Your task to perform on an android device: turn on notifications settings in the gmail app Image 0: 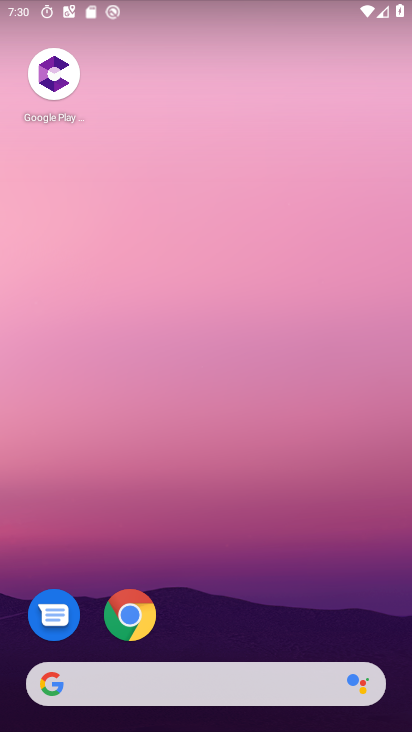
Step 0: drag from (199, 686) to (335, 232)
Your task to perform on an android device: turn on notifications settings in the gmail app Image 1: 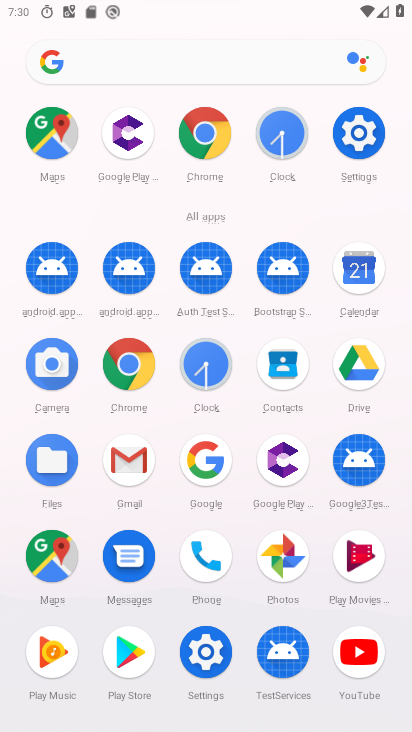
Step 1: click (126, 459)
Your task to perform on an android device: turn on notifications settings in the gmail app Image 2: 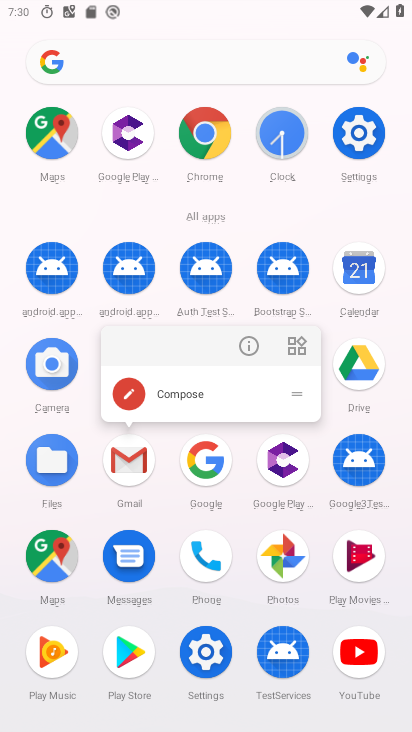
Step 2: click (124, 468)
Your task to perform on an android device: turn on notifications settings in the gmail app Image 3: 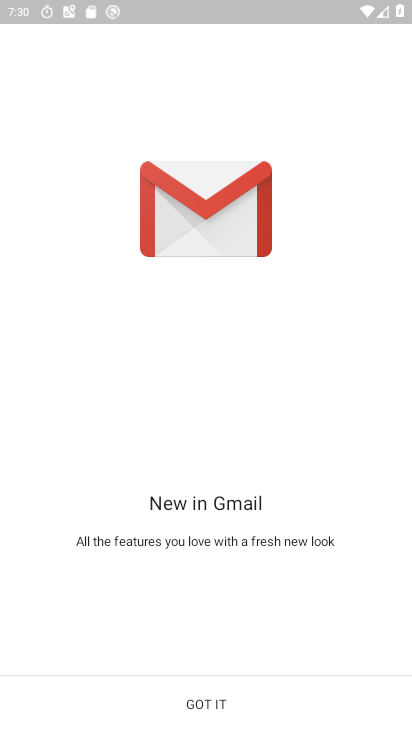
Step 3: click (202, 705)
Your task to perform on an android device: turn on notifications settings in the gmail app Image 4: 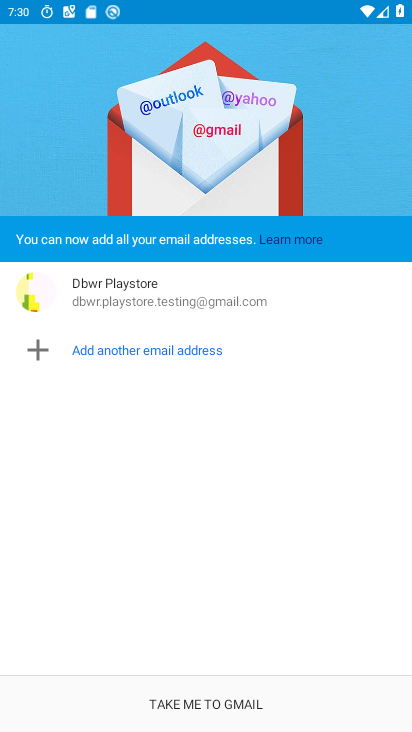
Step 4: click (202, 705)
Your task to perform on an android device: turn on notifications settings in the gmail app Image 5: 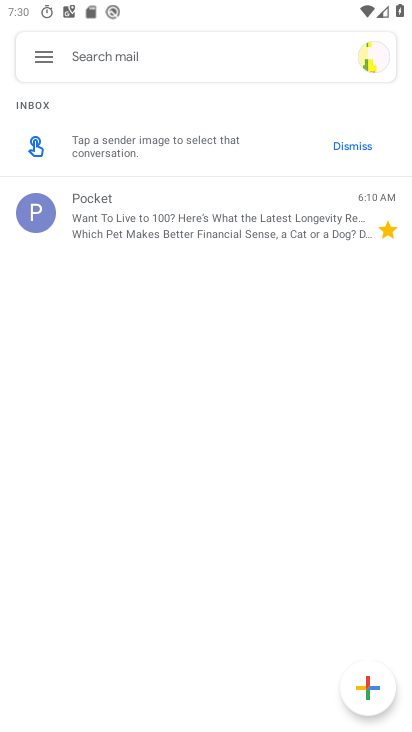
Step 5: click (38, 51)
Your task to perform on an android device: turn on notifications settings in the gmail app Image 6: 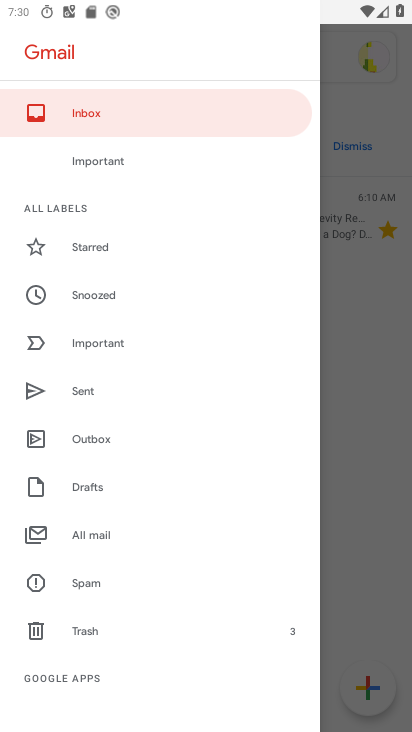
Step 6: drag from (137, 621) to (252, 278)
Your task to perform on an android device: turn on notifications settings in the gmail app Image 7: 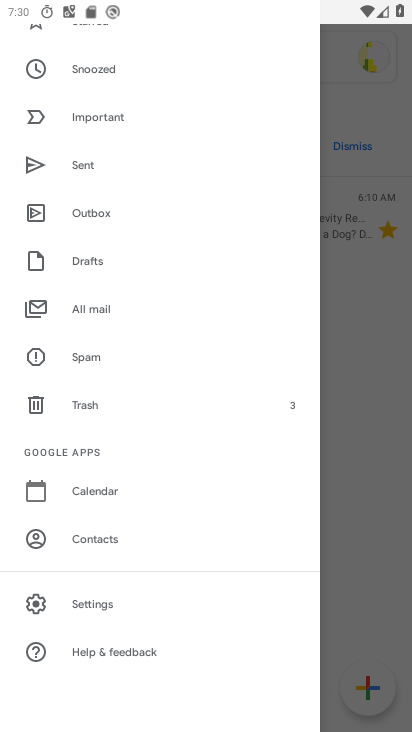
Step 7: click (91, 607)
Your task to perform on an android device: turn on notifications settings in the gmail app Image 8: 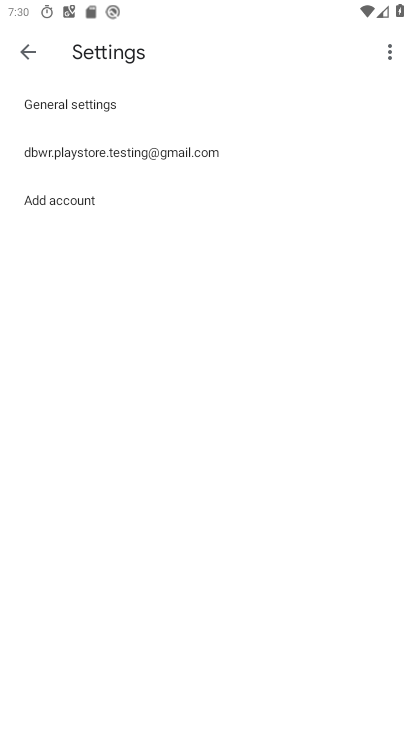
Step 8: click (190, 146)
Your task to perform on an android device: turn on notifications settings in the gmail app Image 9: 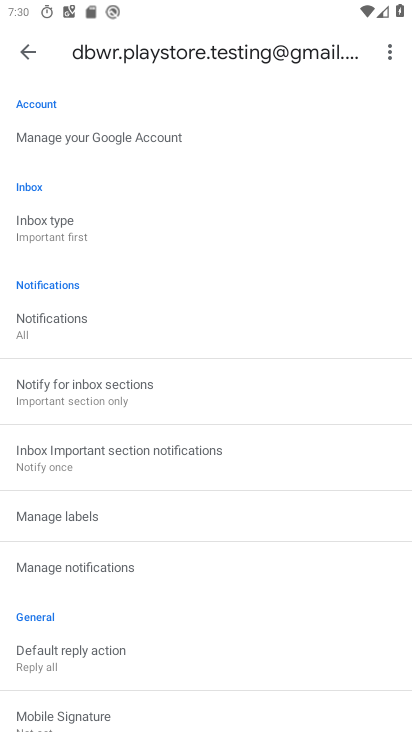
Step 9: click (63, 313)
Your task to perform on an android device: turn on notifications settings in the gmail app Image 10: 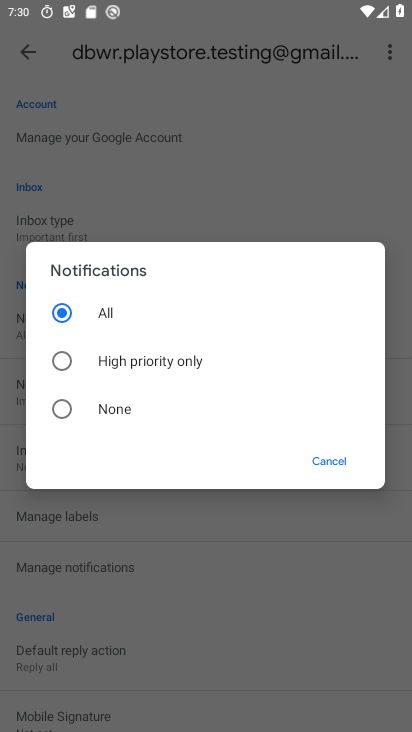
Step 10: task complete